Your task to perform on an android device: Search for logitech g502 on walmart, select the first entry, add it to the cart, then select checkout. Image 0: 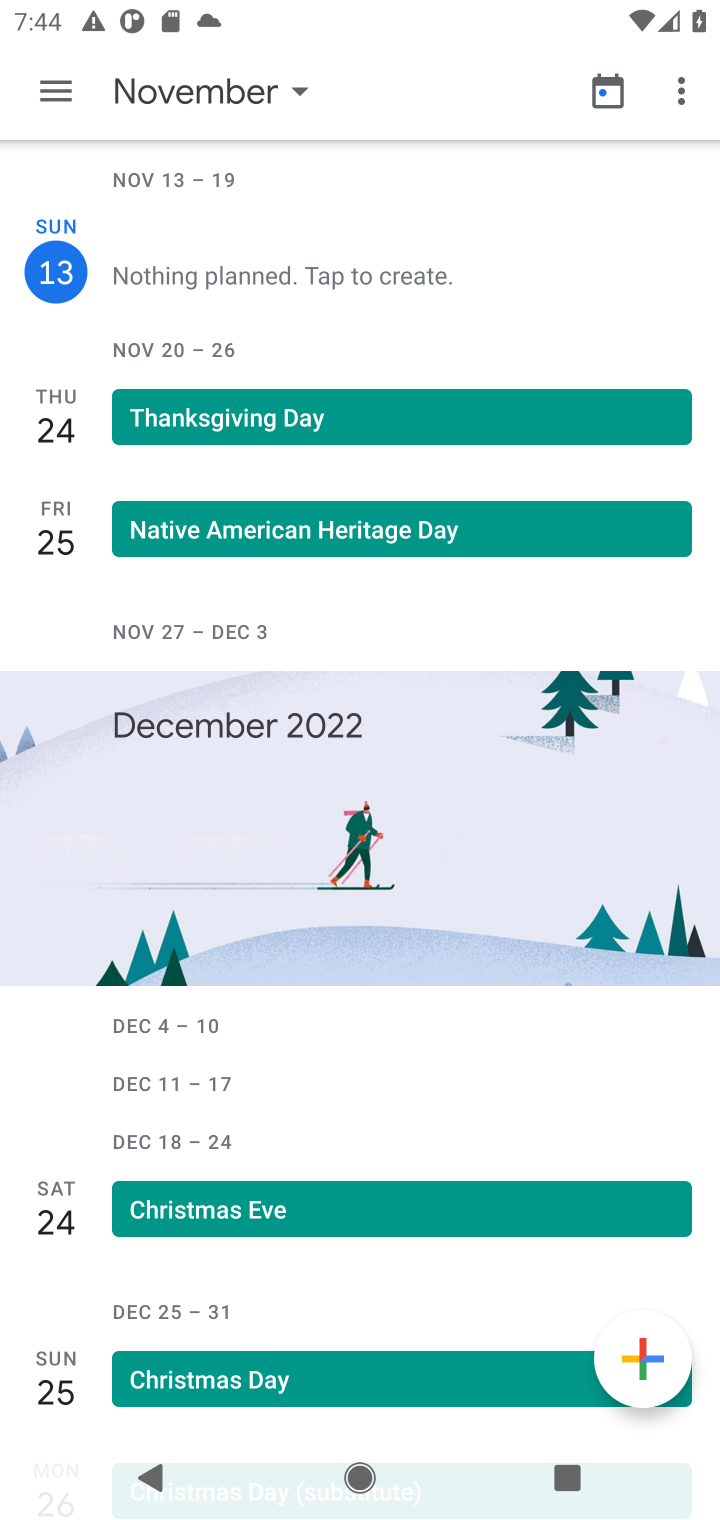
Step 0: press home button
Your task to perform on an android device: Search for logitech g502 on walmart, select the first entry, add it to the cart, then select checkout. Image 1: 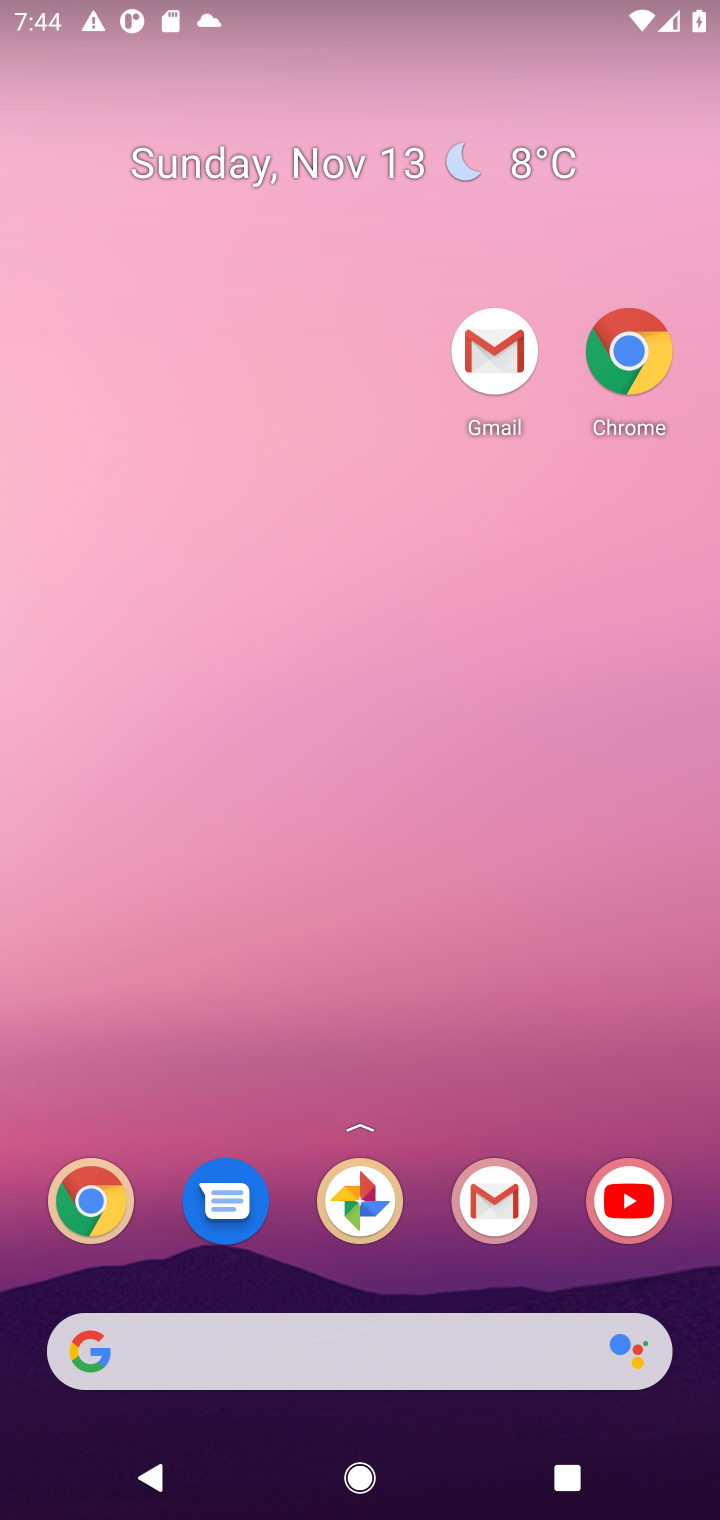
Step 1: drag from (430, 1280) to (347, 156)
Your task to perform on an android device: Search for logitech g502 on walmart, select the first entry, add it to the cart, then select checkout. Image 2: 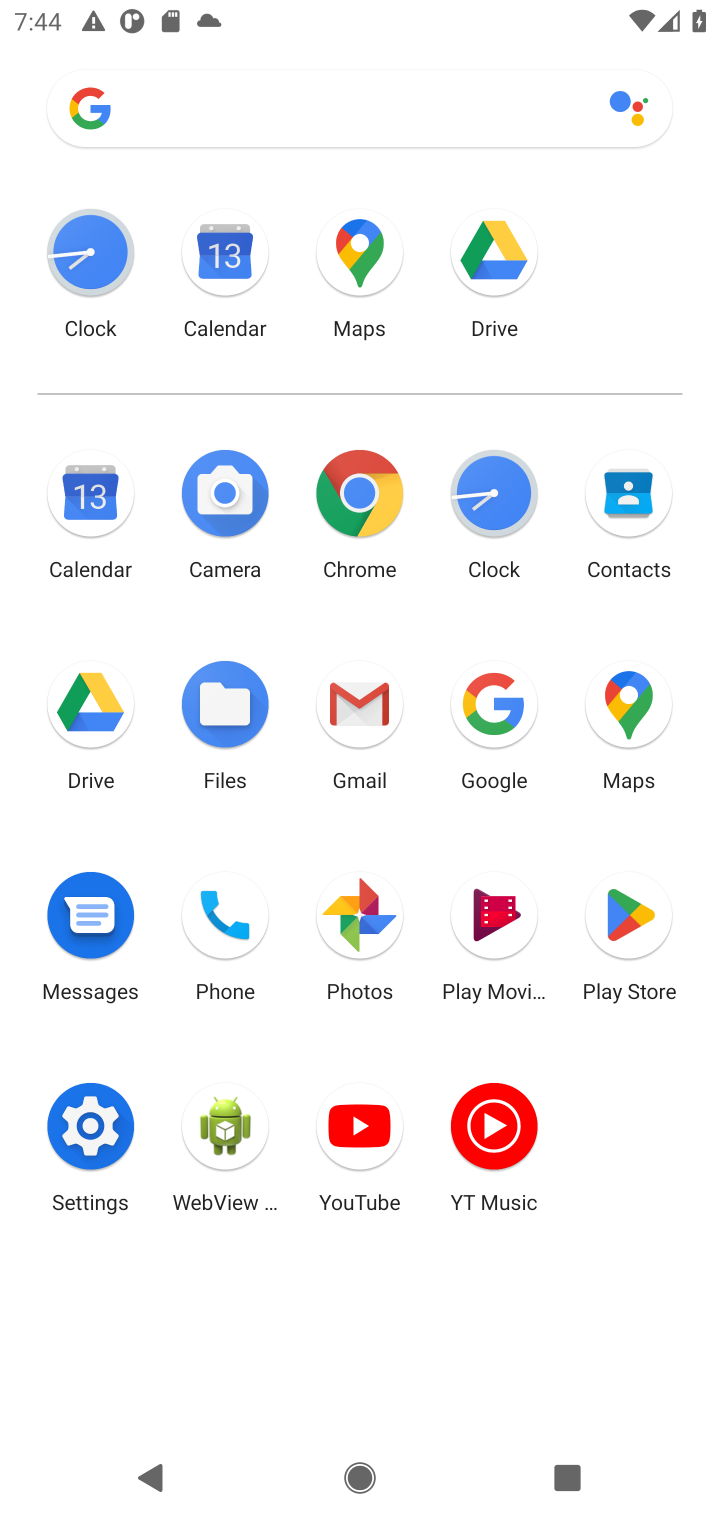
Step 2: click (352, 483)
Your task to perform on an android device: Search for logitech g502 on walmart, select the first entry, add it to the cart, then select checkout. Image 3: 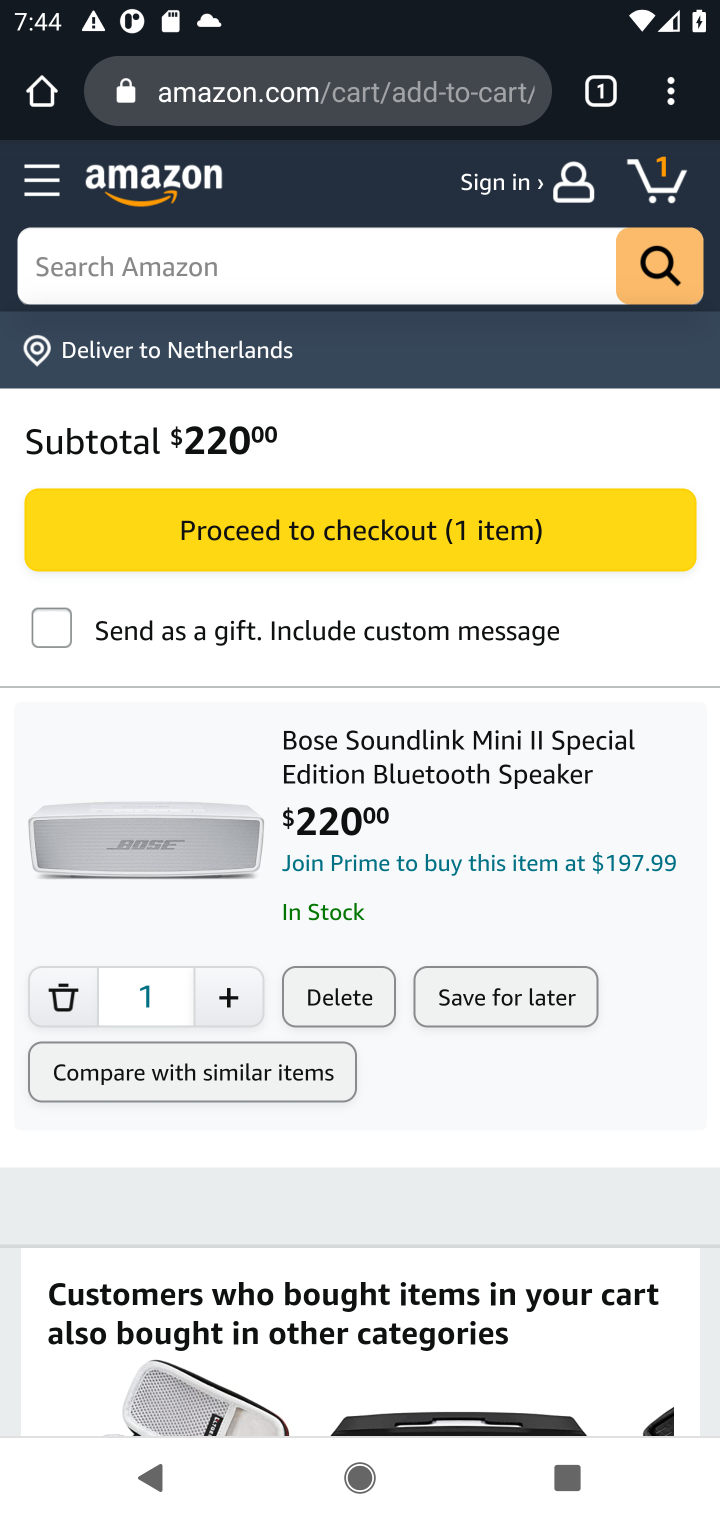
Step 3: click (360, 84)
Your task to perform on an android device: Search for logitech g502 on walmart, select the first entry, add it to the cart, then select checkout. Image 4: 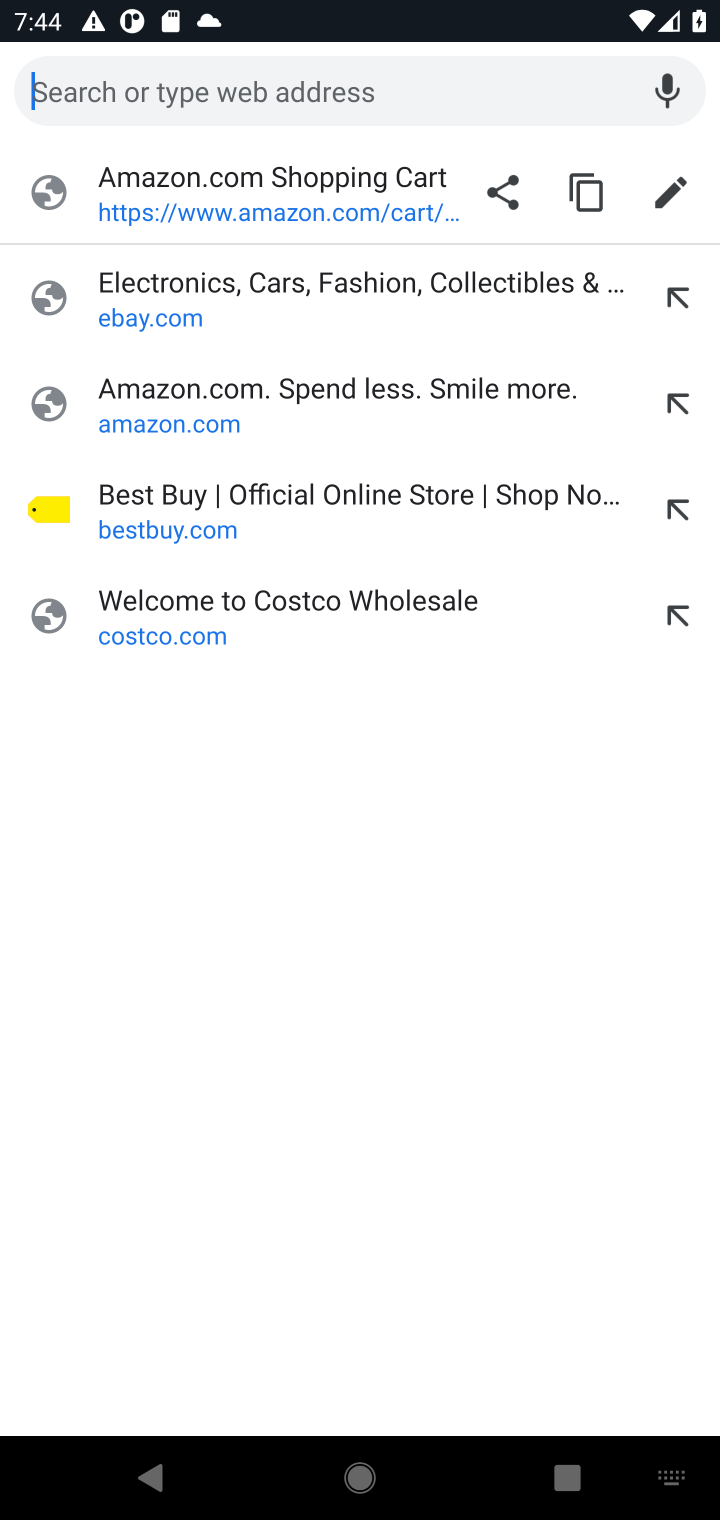
Step 4: type "walmart.com"
Your task to perform on an android device: Search for logitech g502 on walmart, select the first entry, add it to the cart, then select checkout. Image 5: 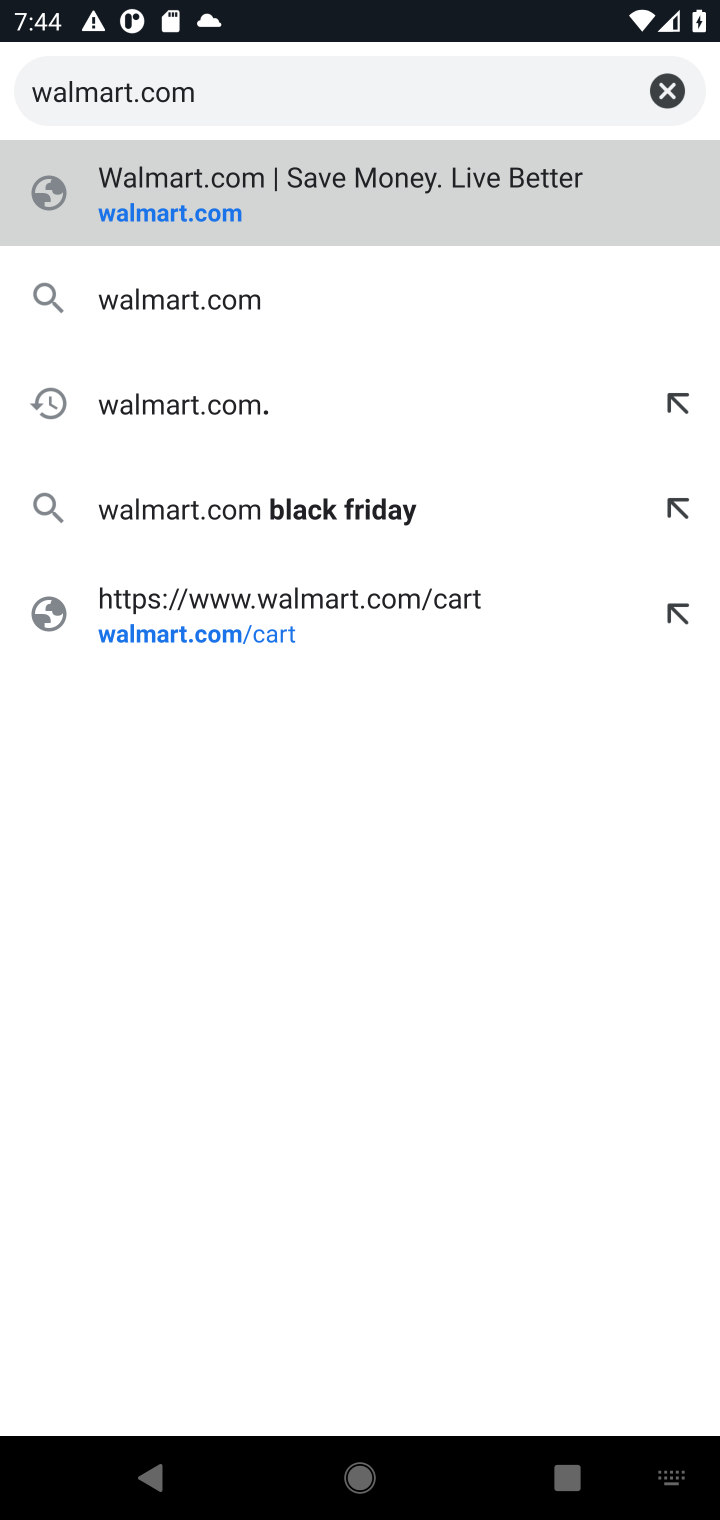
Step 5: press enter
Your task to perform on an android device: Search for logitech g502 on walmart, select the first entry, add it to the cart, then select checkout. Image 6: 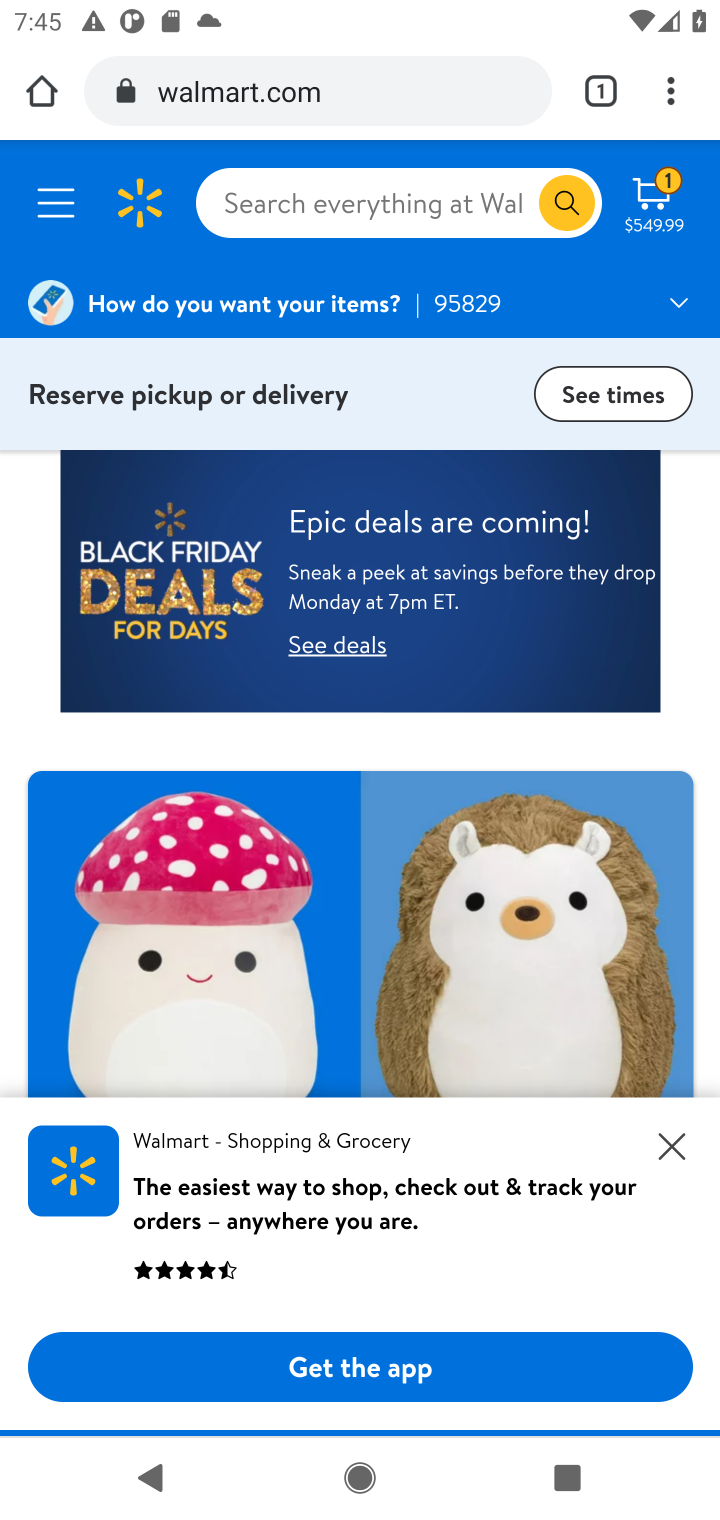
Step 6: click (430, 221)
Your task to perform on an android device: Search for logitech g502 on walmart, select the first entry, add it to the cart, then select checkout. Image 7: 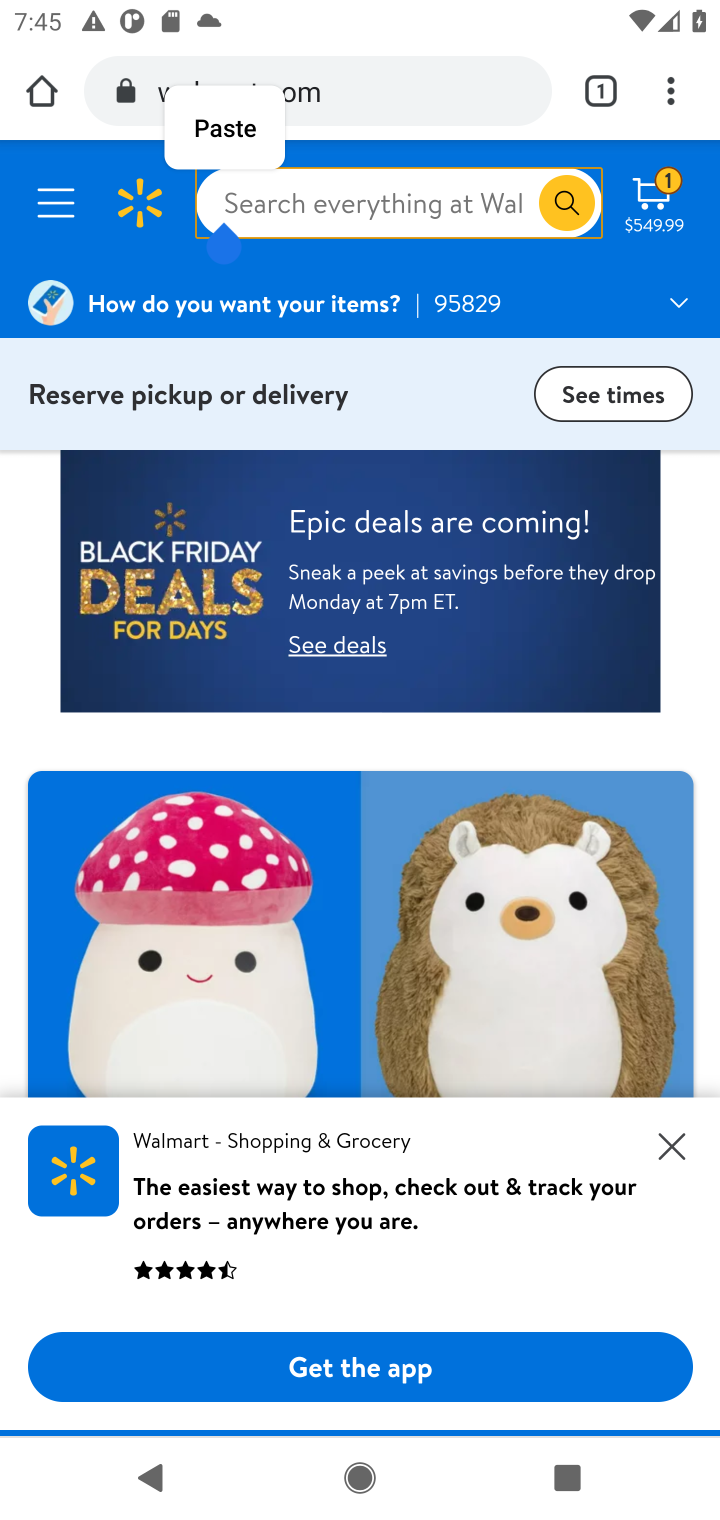
Step 7: type "logitech g502"
Your task to perform on an android device: Search for logitech g502 on walmart, select the first entry, add it to the cart, then select checkout. Image 8: 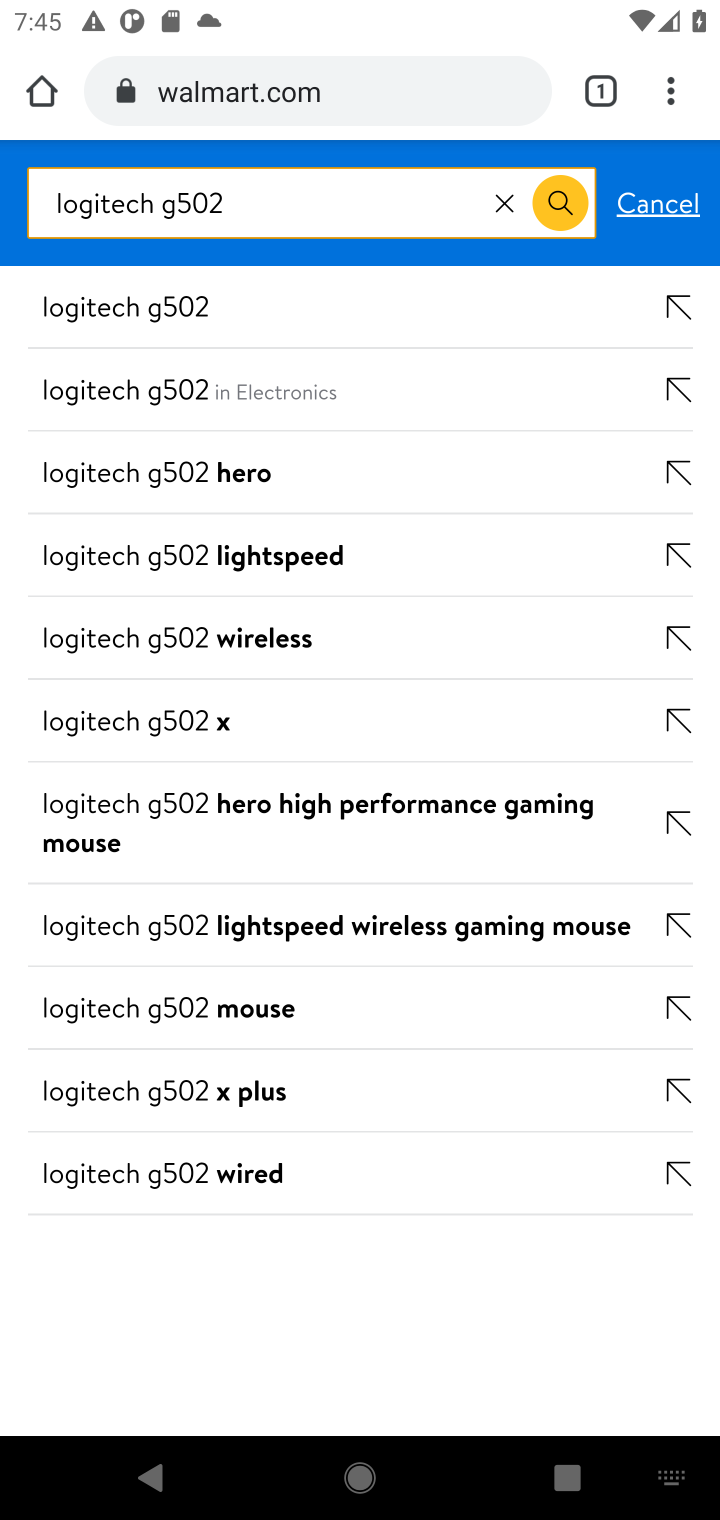
Step 8: press enter
Your task to perform on an android device: Search for logitech g502 on walmart, select the first entry, add it to the cart, then select checkout. Image 9: 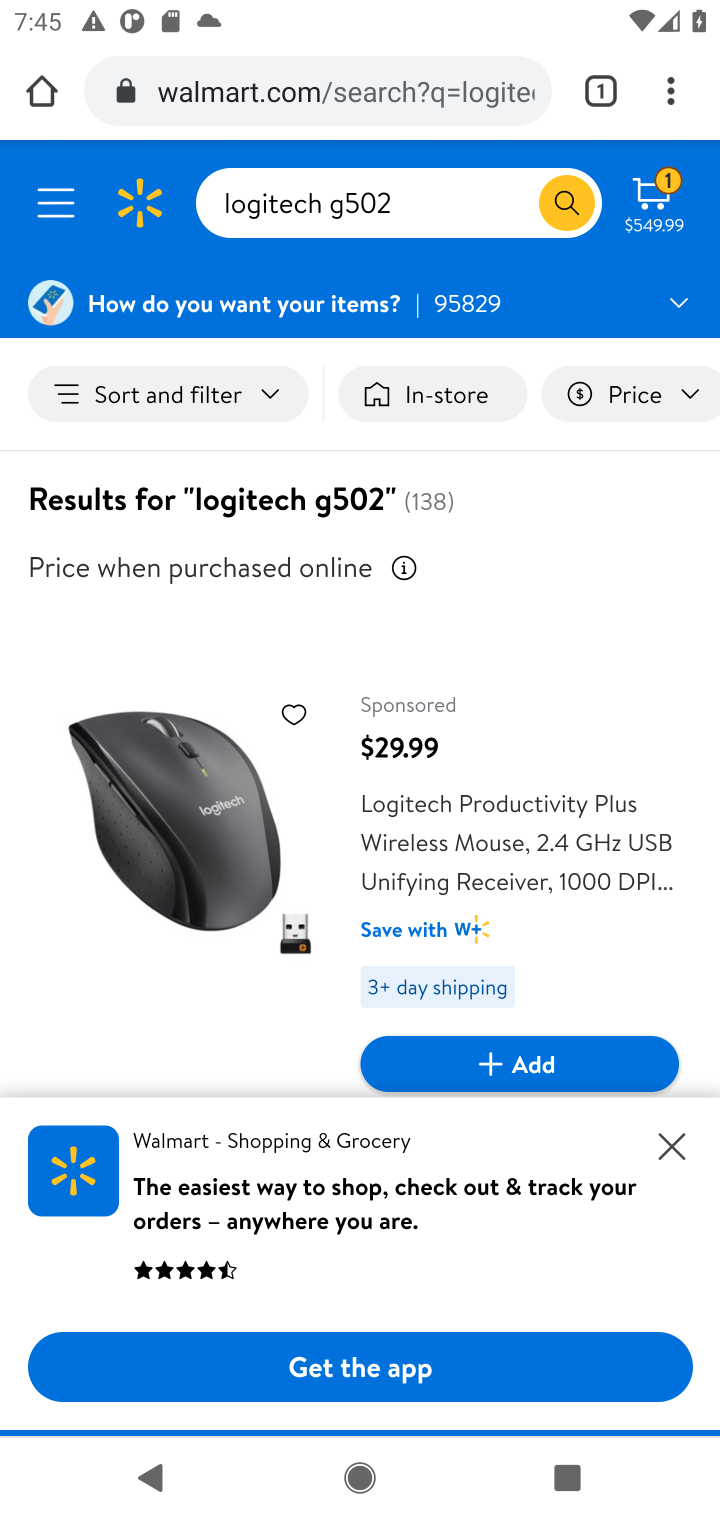
Step 9: drag from (398, 1031) to (435, 554)
Your task to perform on an android device: Search for logitech g502 on walmart, select the first entry, add it to the cart, then select checkout. Image 10: 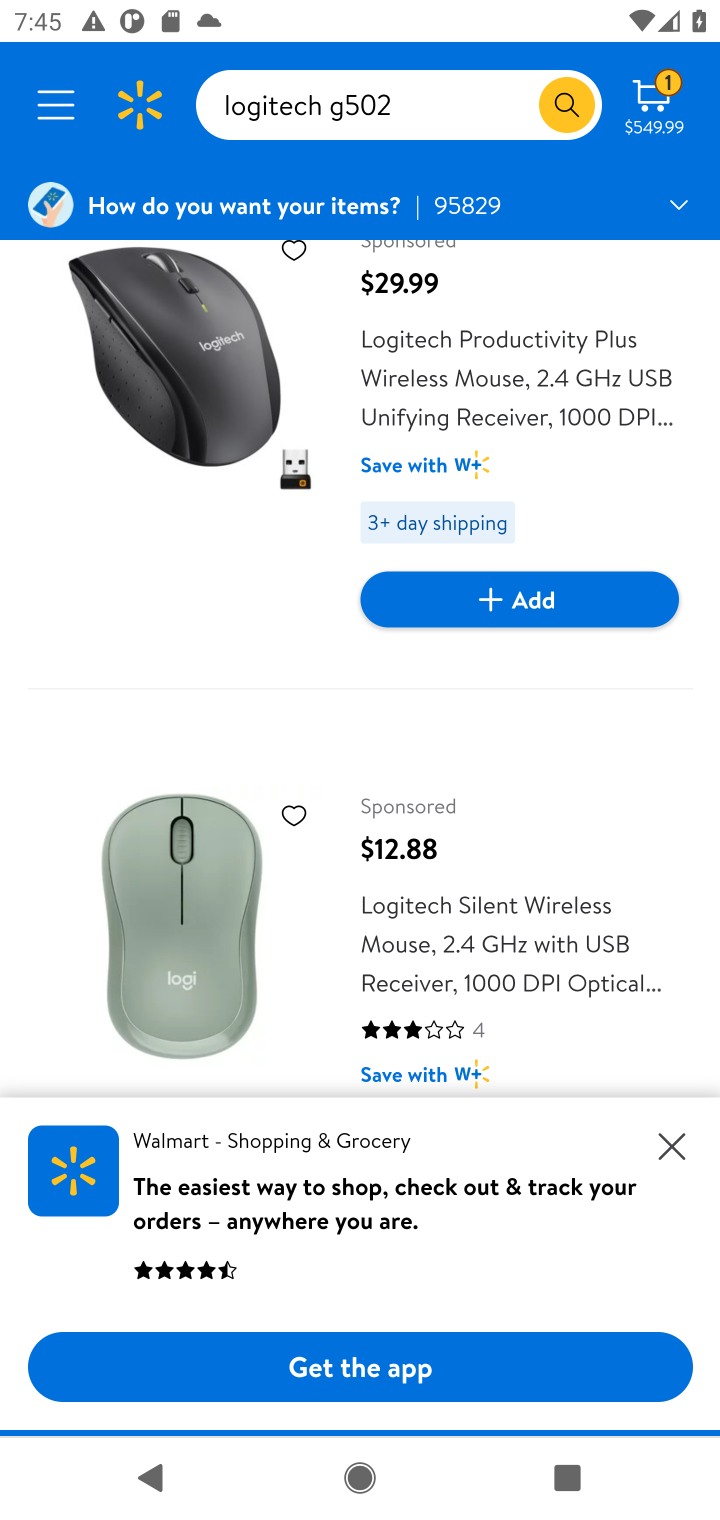
Step 10: drag from (378, 1003) to (206, 311)
Your task to perform on an android device: Search for logitech g502 on walmart, select the first entry, add it to the cart, then select checkout. Image 11: 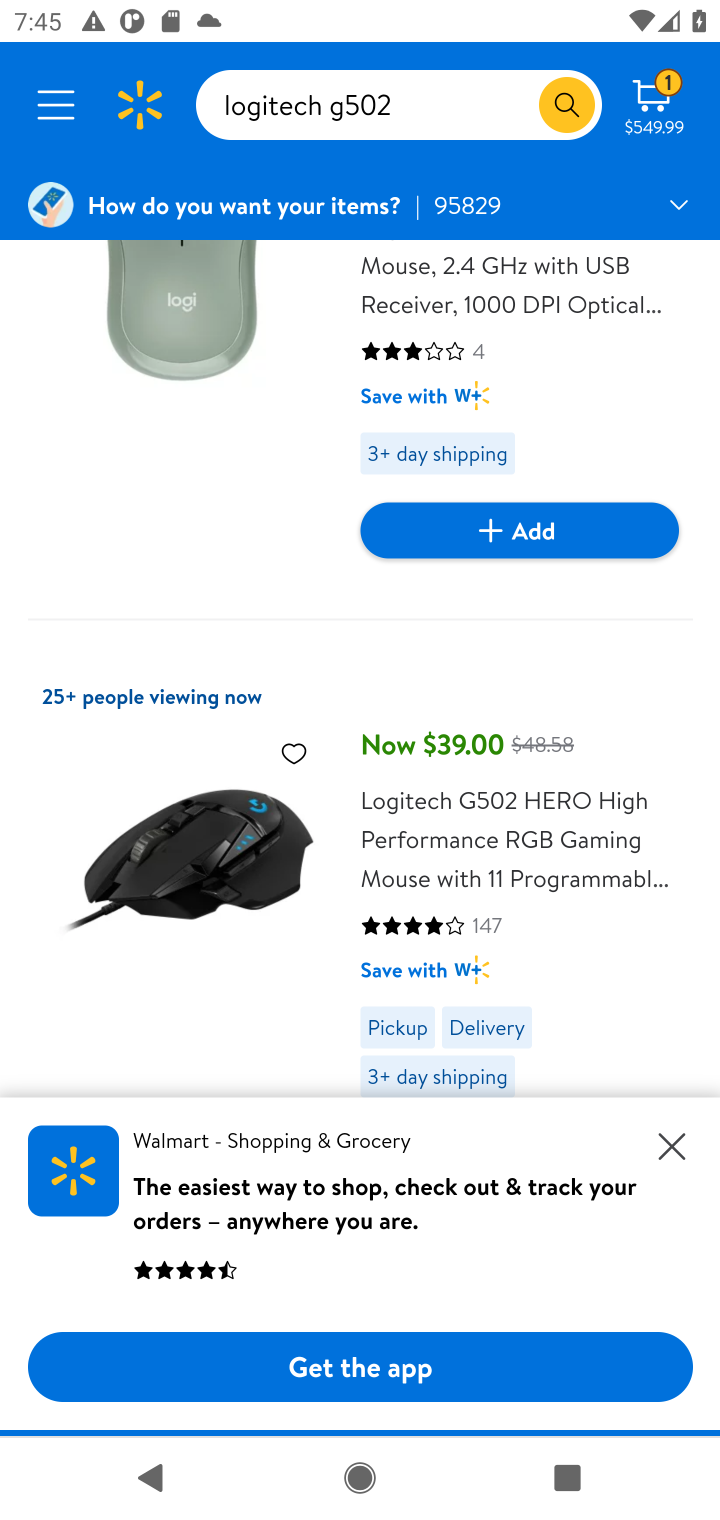
Step 11: drag from (406, 1041) to (387, 656)
Your task to perform on an android device: Search for logitech g502 on walmart, select the first entry, add it to the cart, then select checkout. Image 12: 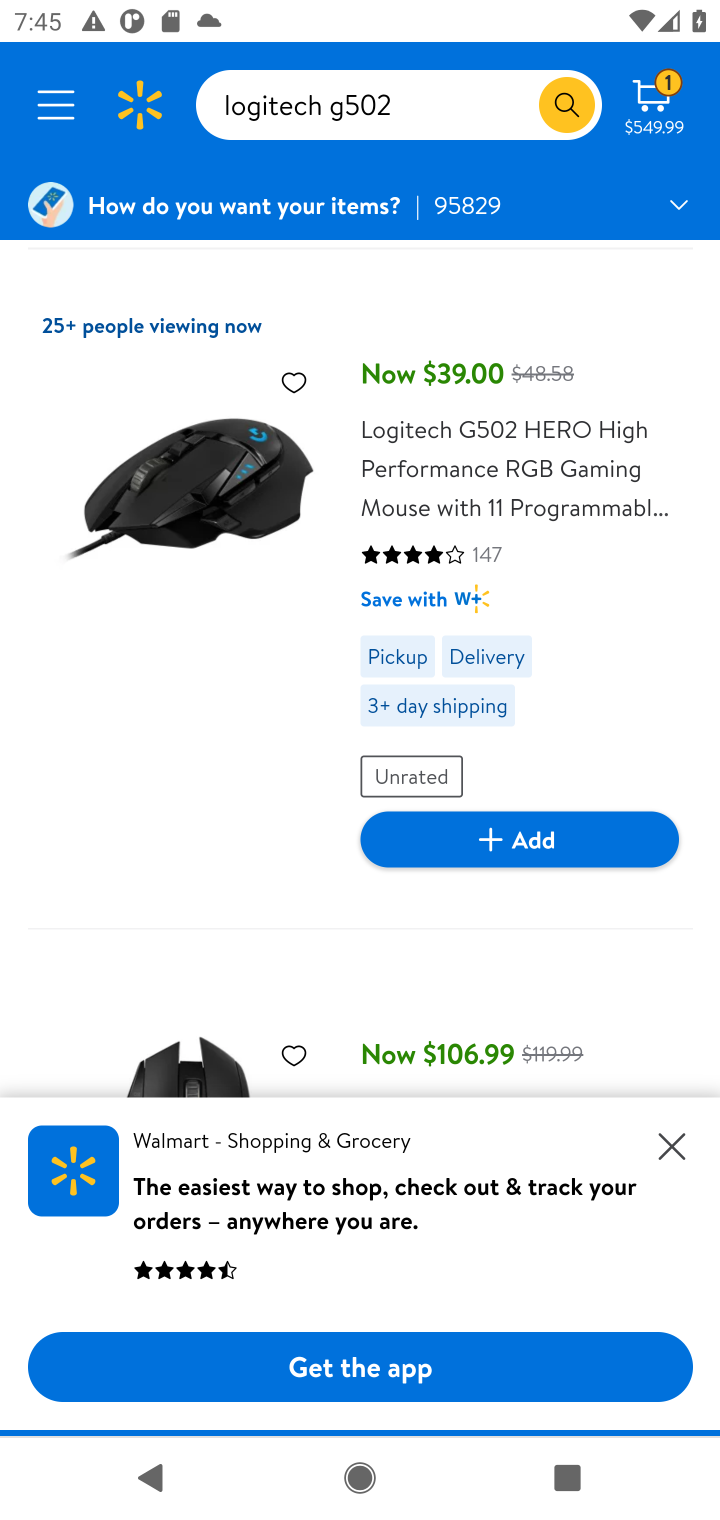
Step 12: click (518, 852)
Your task to perform on an android device: Search for logitech g502 on walmart, select the first entry, add it to the cart, then select checkout. Image 13: 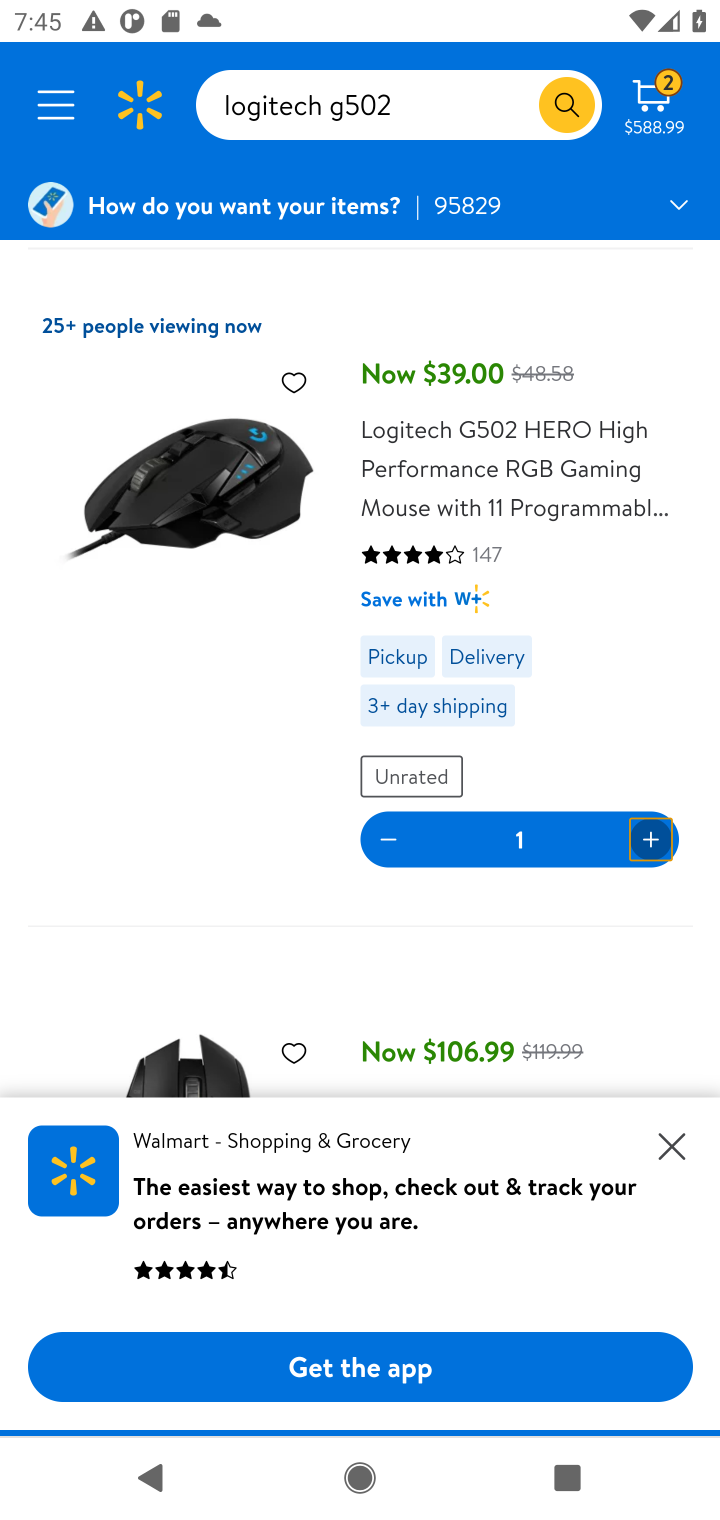
Step 13: click (658, 110)
Your task to perform on an android device: Search for logitech g502 on walmart, select the first entry, add it to the cart, then select checkout. Image 14: 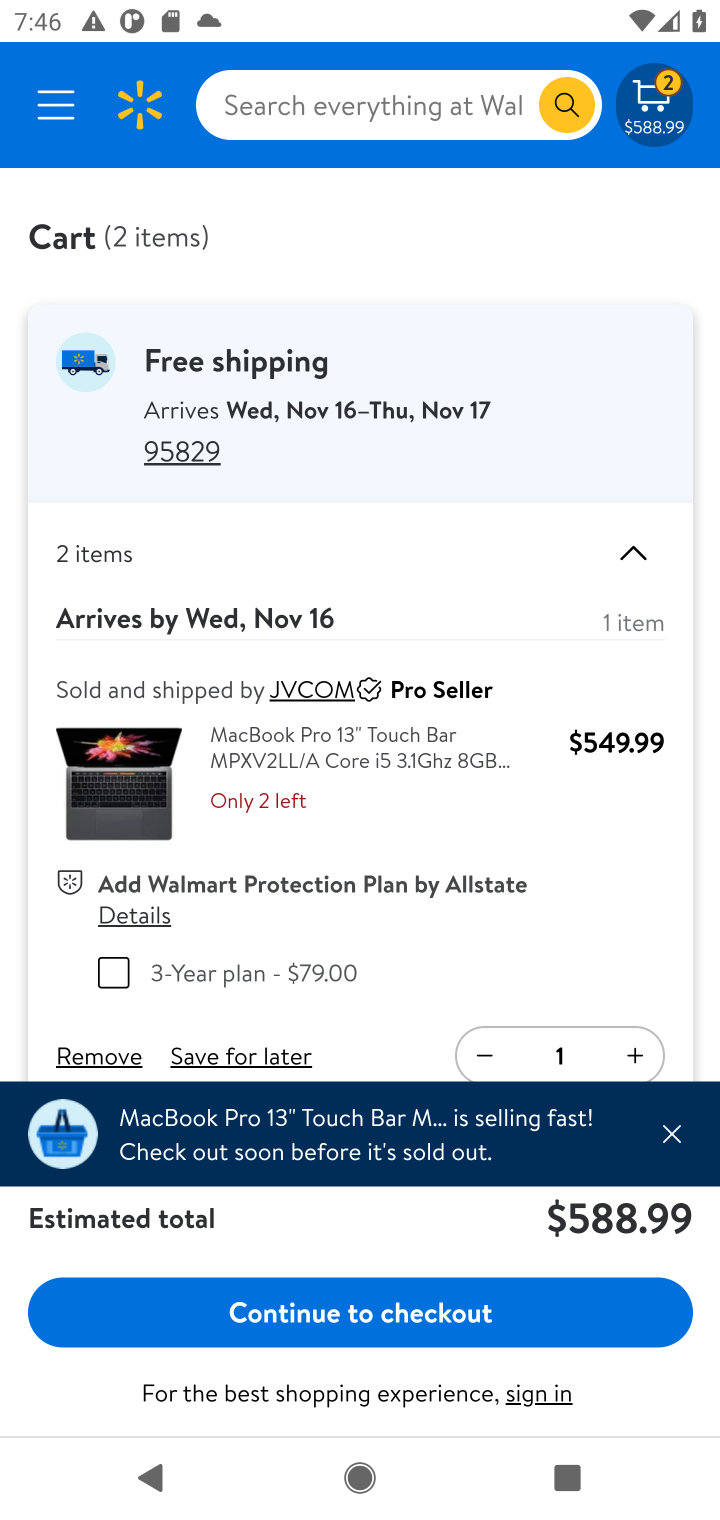
Step 14: click (372, 1316)
Your task to perform on an android device: Search for logitech g502 on walmart, select the first entry, add it to the cart, then select checkout. Image 15: 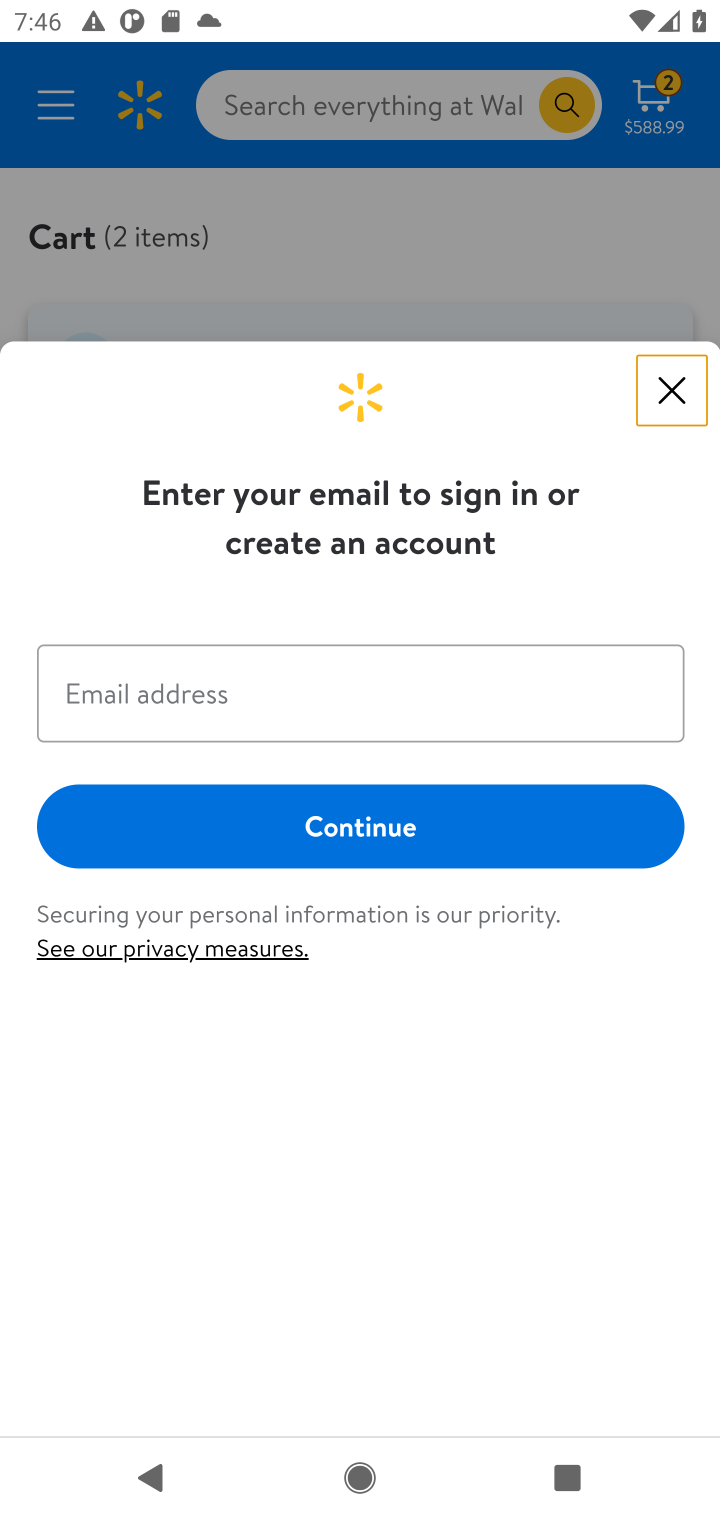
Step 15: task complete